Your task to perform on an android device: turn off javascript in the chrome app Image 0: 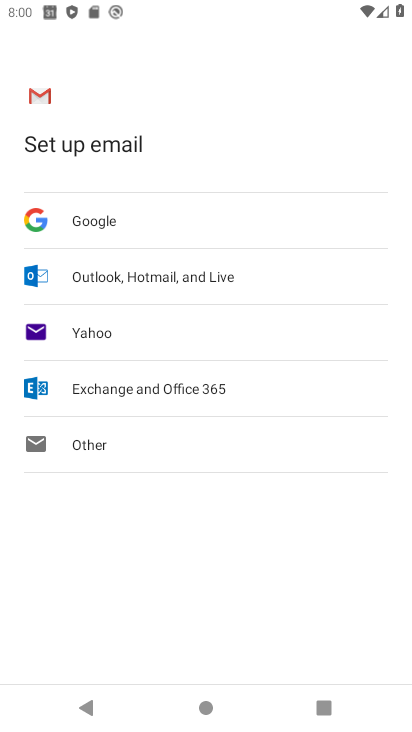
Step 0: press home button
Your task to perform on an android device: turn off javascript in the chrome app Image 1: 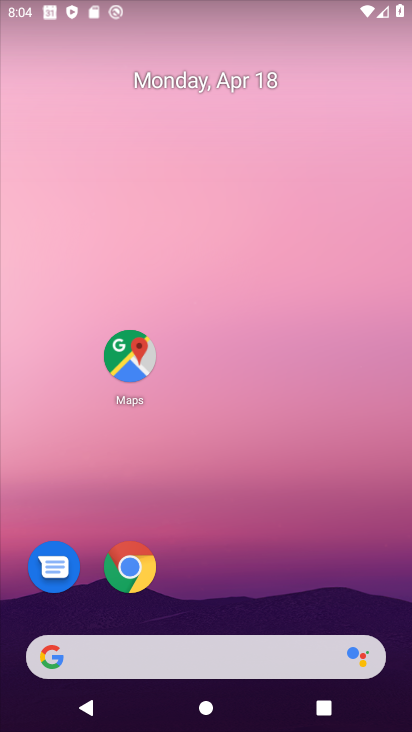
Step 1: drag from (188, 677) to (311, 146)
Your task to perform on an android device: turn off javascript in the chrome app Image 2: 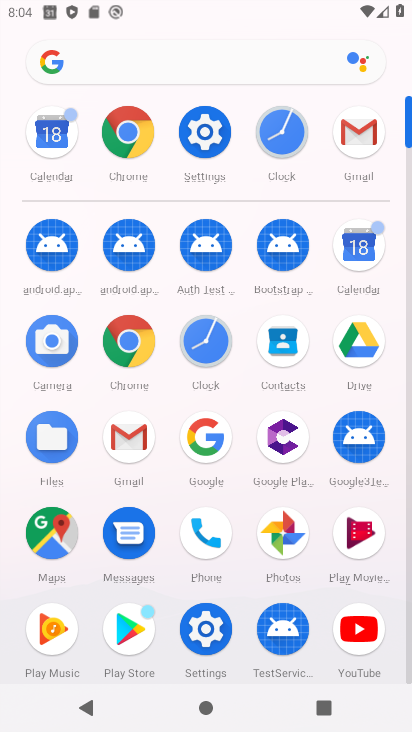
Step 2: click (125, 343)
Your task to perform on an android device: turn off javascript in the chrome app Image 3: 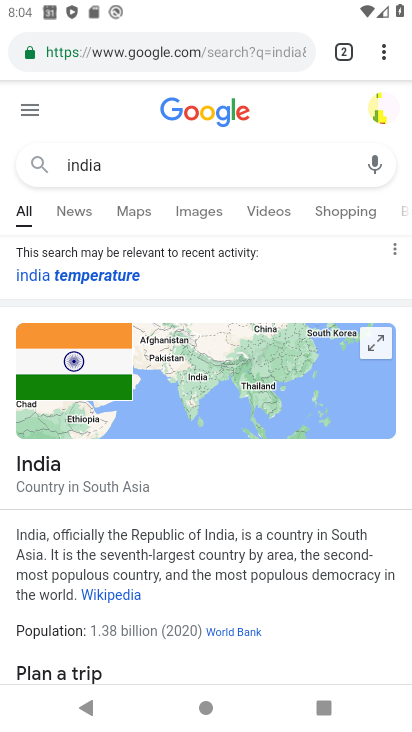
Step 3: click (382, 47)
Your task to perform on an android device: turn off javascript in the chrome app Image 4: 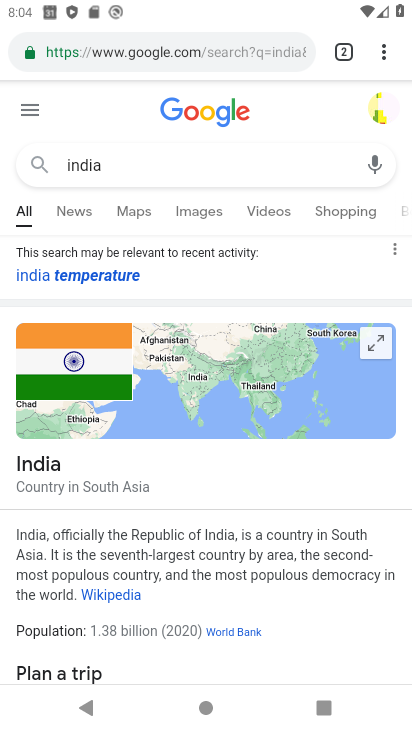
Step 4: click (382, 58)
Your task to perform on an android device: turn off javascript in the chrome app Image 5: 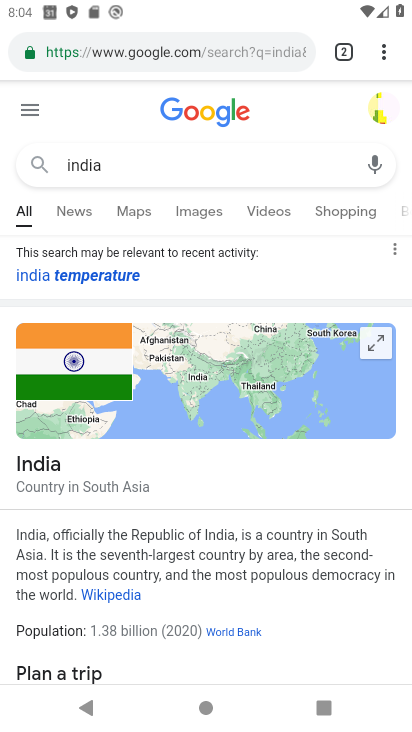
Step 5: click (382, 58)
Your task to perform on an android device: turn off javascript in the chrome app Image 6: 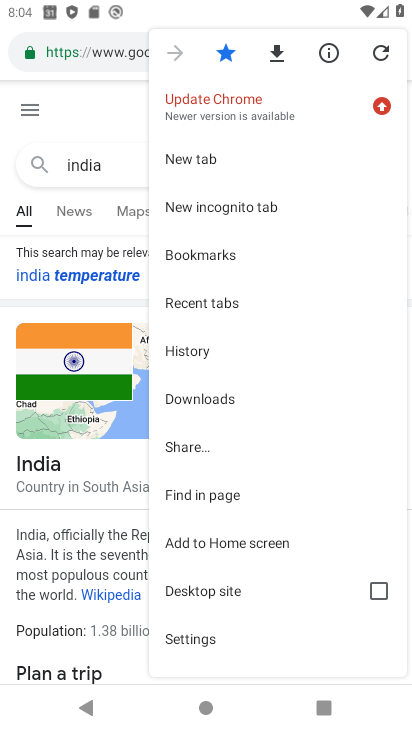
Step 6: click (205, 637)
Your task to perform on an android device: turn off javascript in the chrome app Image 7: 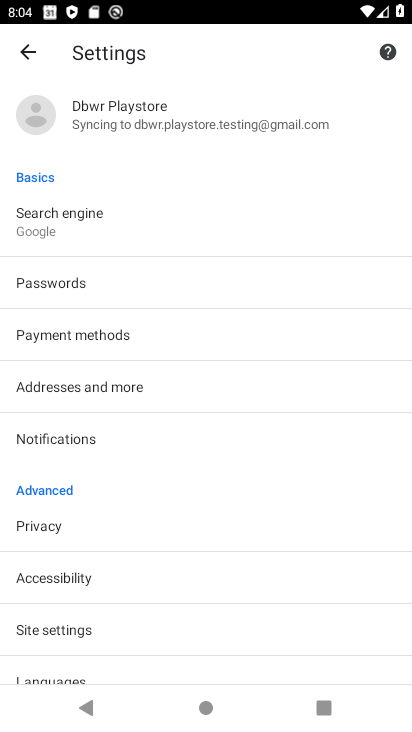
Step 7: drag from (103, 581) to (123, 397)
Your task to perform on an android device: turn off javascript in the chrome app Image 8: 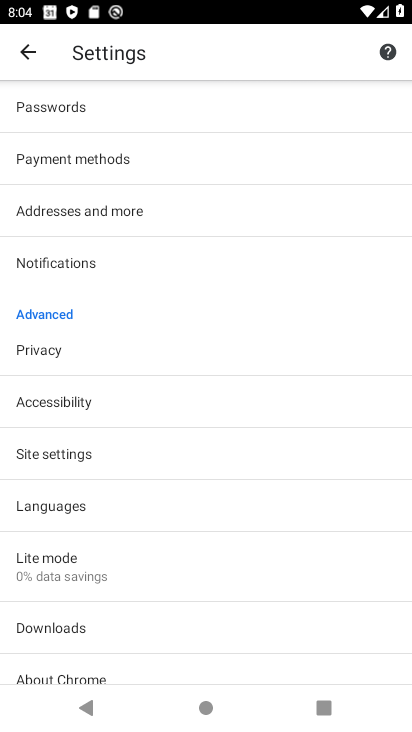
Step 8: click (57, 456)
Your task to perform on an android device: turn off javascript in the chrome app Image 9: 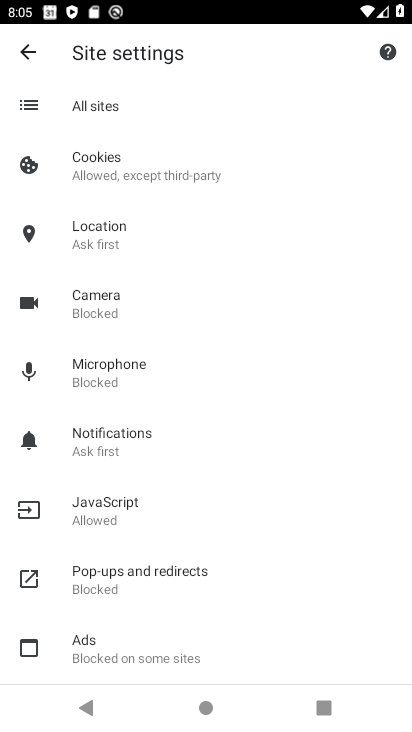
Step 9: click (63, 529)
Your task to perform on an android device: turn off javascript in the chrome app Image 10: 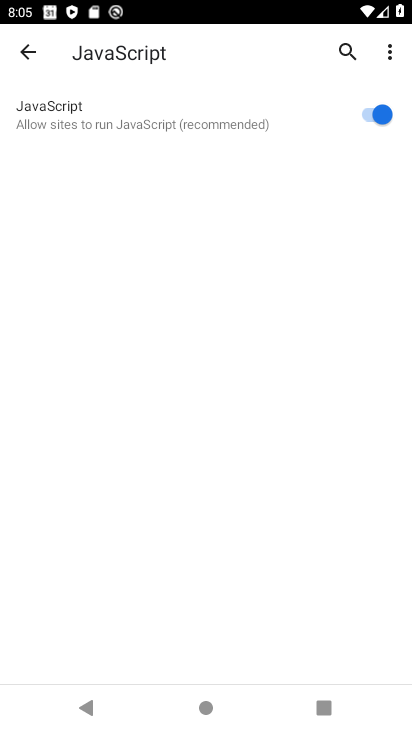
Step 10: click (361, 107)
Your task to perform on an android device: turn off javascript in the chrome app Image 11: 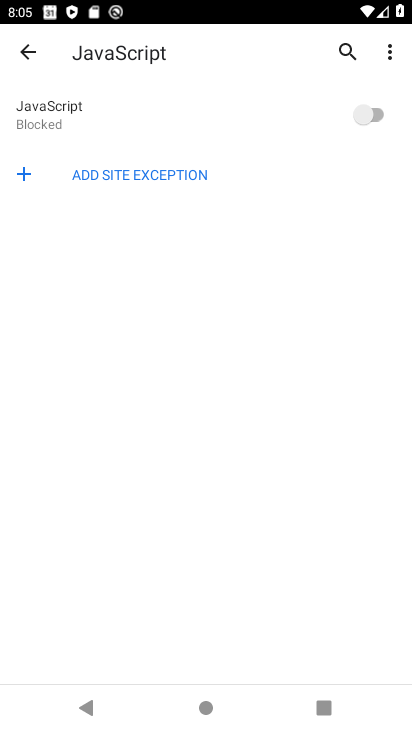
Step 11: task complete